Your task to perform on an android device: read, delete, or share a saved page in the chrome app Image 0: 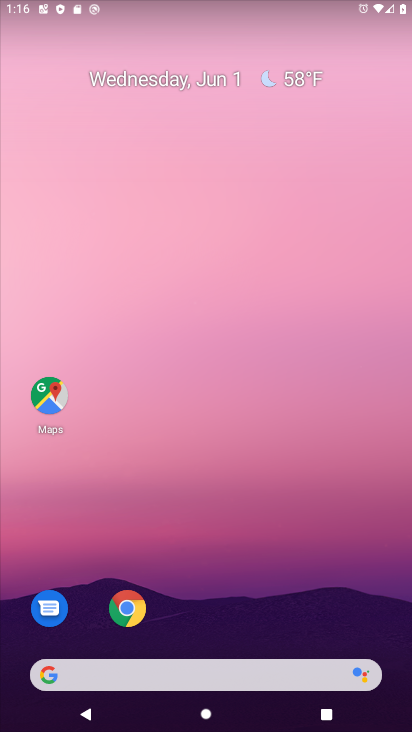
Step 0: drag from (282, 454) to (350, 23)
Your task to perform on an android device: read, delete, or share a saved page in the chrome app Image 1: 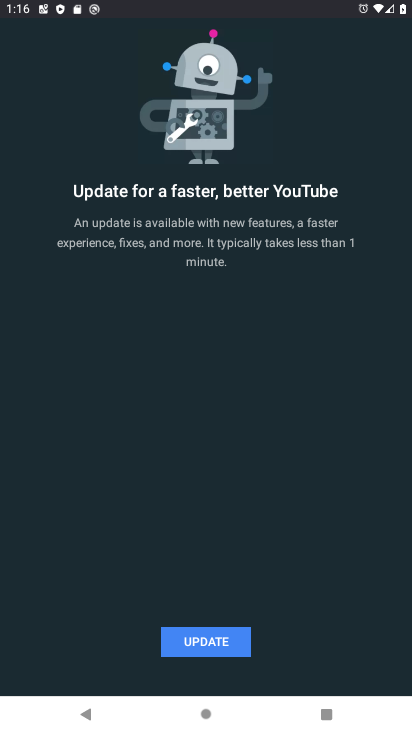
Step 1: press home button
Your task to perform on an android device: read, delete, or share a saved page in the chrome app Image 2: 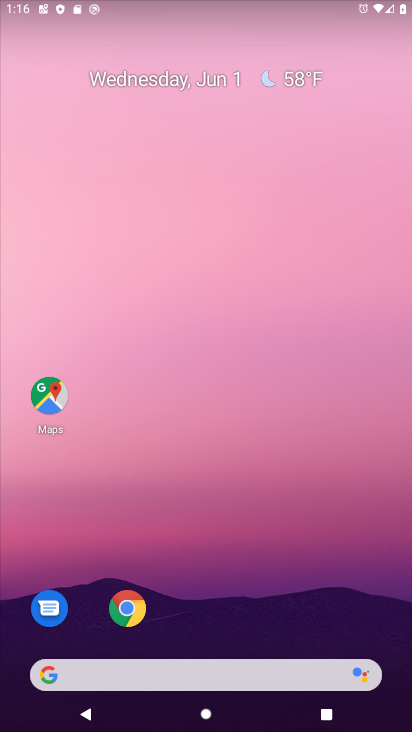
Step 2: drag from (353, 524) to (329, 59)
Your task to perform on an android device: read, delete, or share a saved page in the chrome app Image 3: 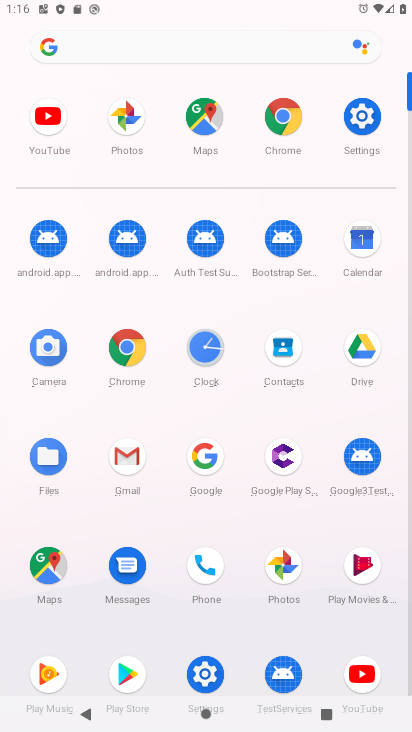
Step 3: click (130, 347)
Your task to perform on an android device: read, delete, or share a saved page in the chrome app Image 4: 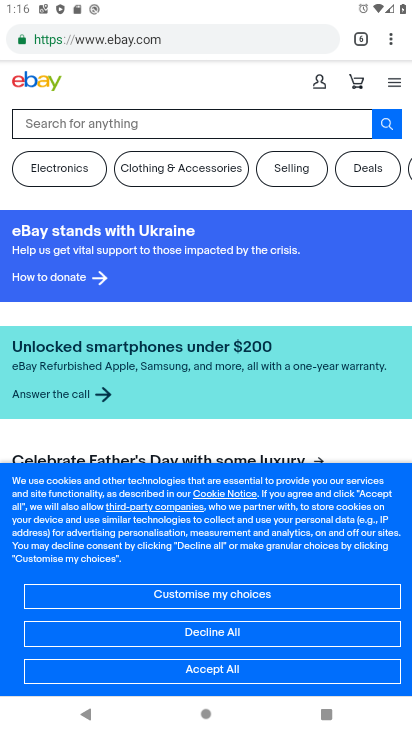
Step 4: click (395, 29)
Your task to perform on an android device: read, delete, or share a saved page in the chrome app Image 5: 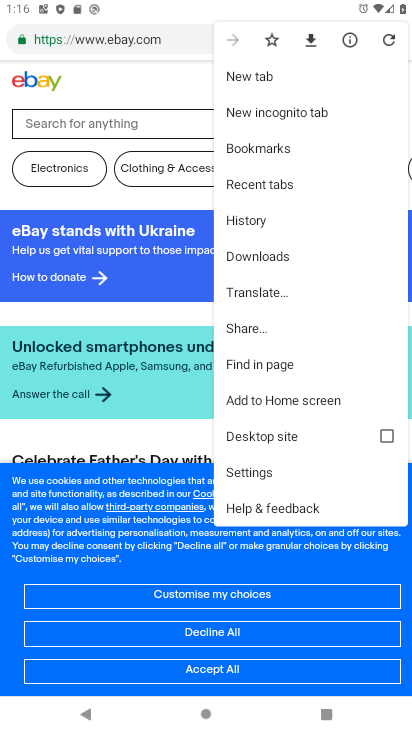
Step 5: click (261, 474)
Your task to perform on an android device: read, delete, or share a saved page in the chrome app Image 6: 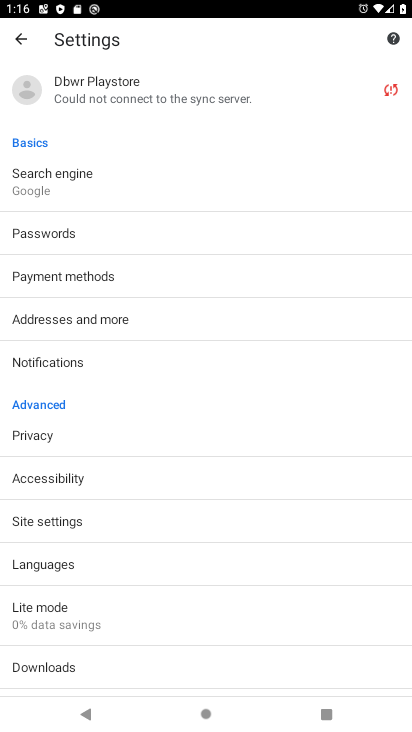
Step 6: drag from (207, 518) to (268, 111)
Your task to perform on an android device: read, delete, or share a saved page in the chrome app Image 7: 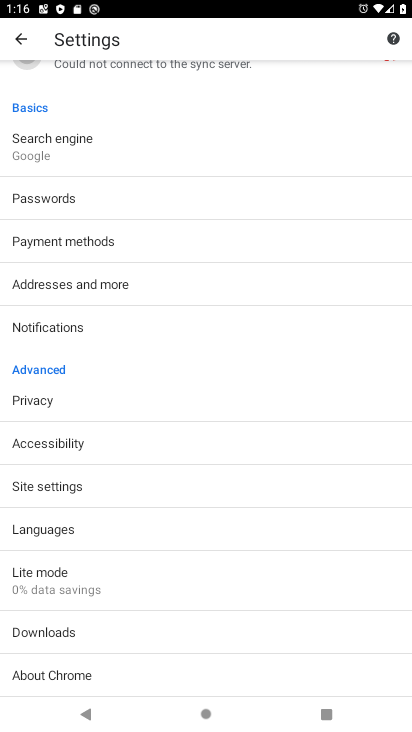
Step 7: click (109, 382)
Your task to perform on an android device: read, delete, or share a saved page in the chrome app Image 8: 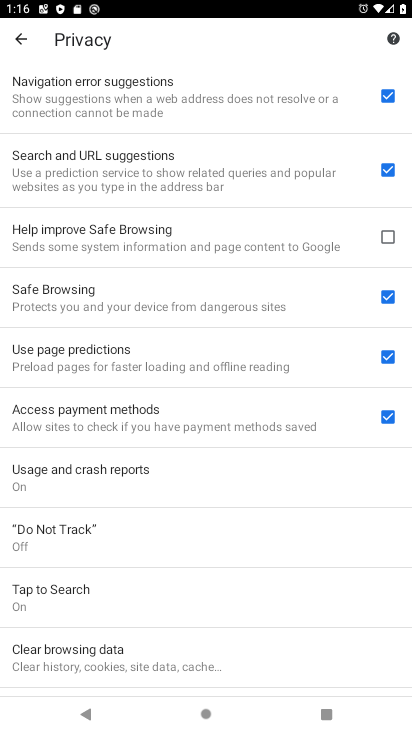
Step 8: drag from (158, 520) to (217, 161)
Your task to perform on an android device: read, delete, or share a saved page in the chrome app Image 9: 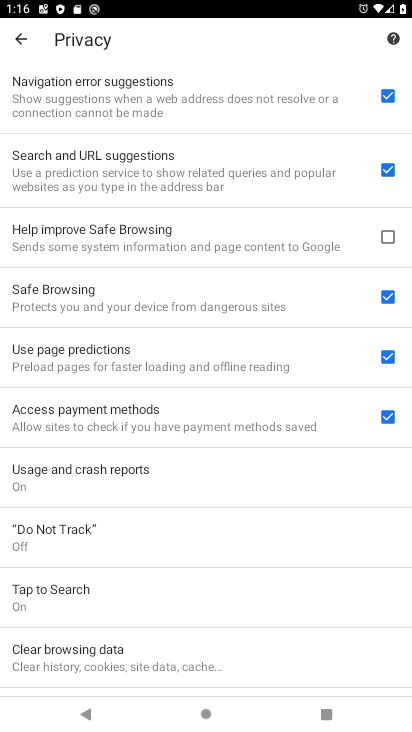
Step 9: press back button
Your task to perform on an android device: read, delete, or share a saved page in the chrome app Image 10: 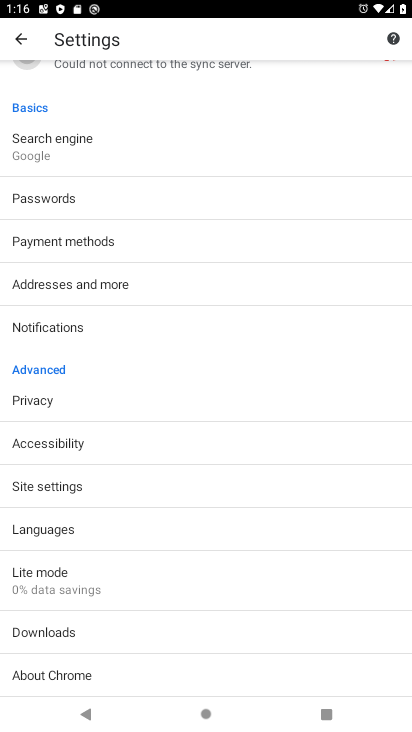
Step 10: click (75, 433)
Your task to perform on an android device: read, delete, or share a saved page in the chrome app Image 11: 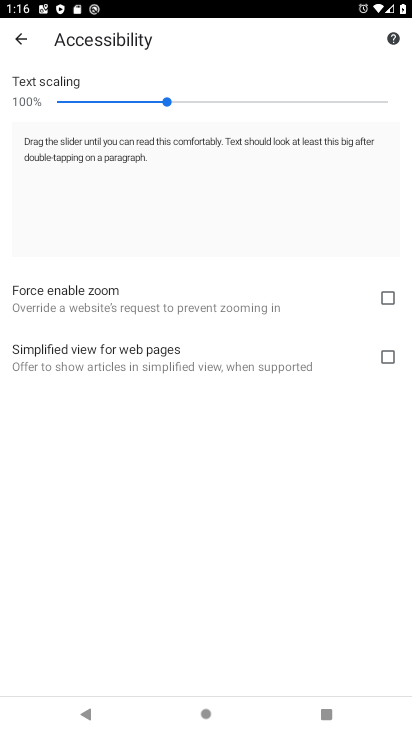
Step 11: task complete